Your task to perform on an android device: turn pop-ups off in chrome Image 0: 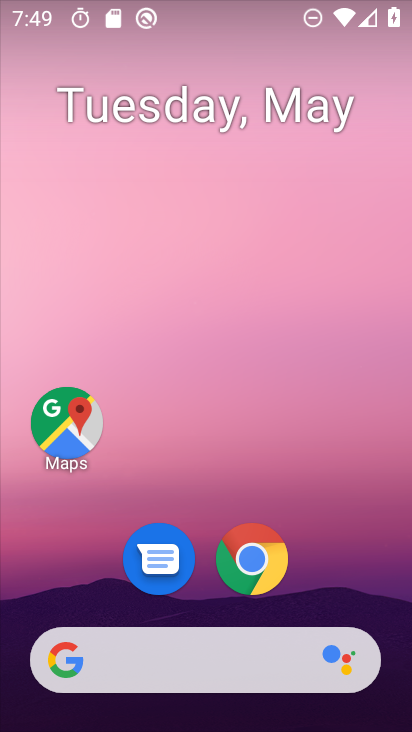
Step 0: drag from (401, 533) to (299, 38)
Your task to perform on an android device: turn pop-ups off in chrome Image 1: 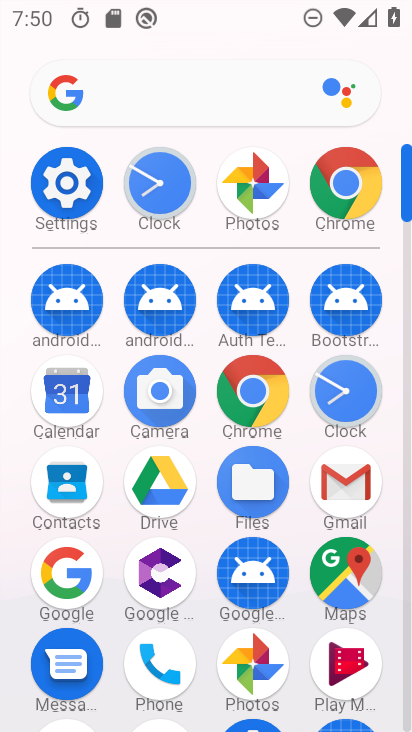
Step 1: click (359, 161)
Your task to perform on an android device: turn pop-ups off in chrome Image 2: 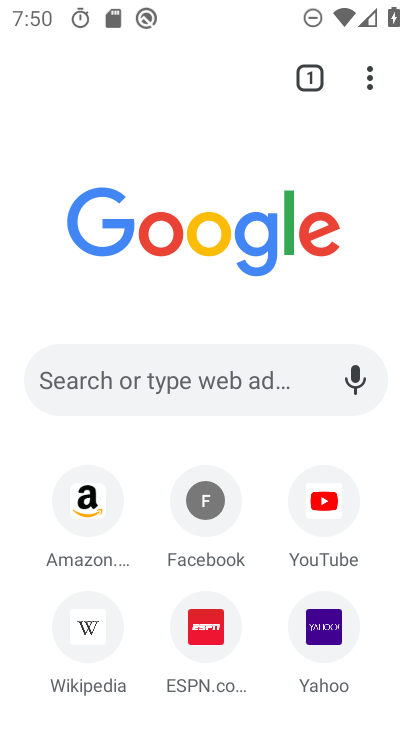
Step 2: click (367, 75)
Your task to perform on an android device: turn pop-ups off in chrome Image 3: 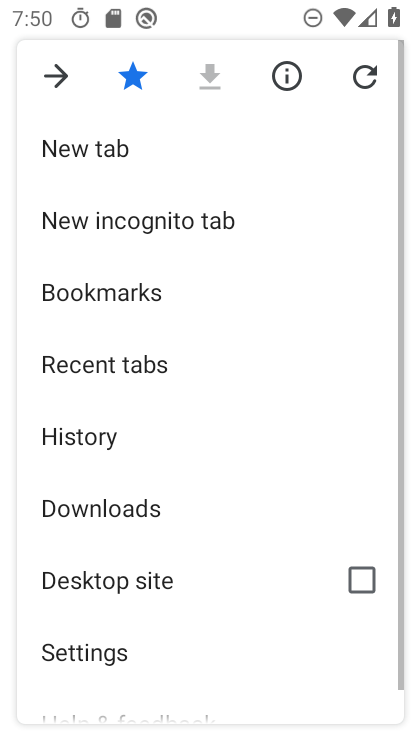
Step 3: click (118, 651)
Your task to perform on an android device: turn pop-ups off in chrome Image 4: 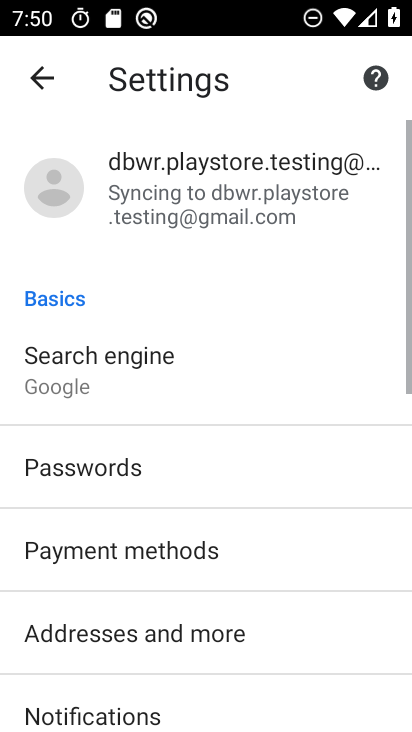
Step 4: drag from (119, 651) to (149, 158)
Your task to perform on an android device: turn pop-ups off in chrome Image 5: 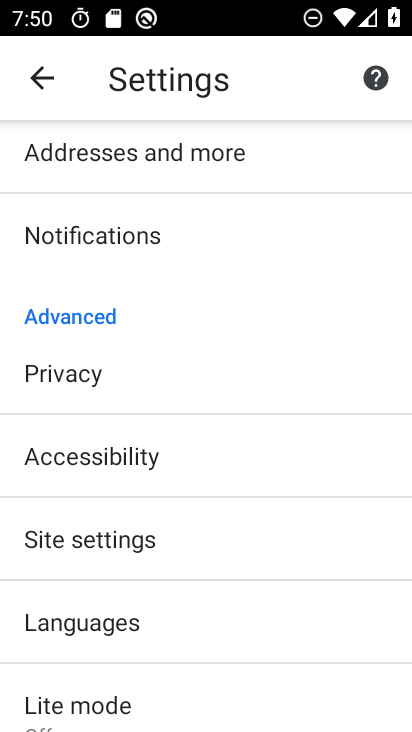
Step 5: click (128, 563)
Your task to perform on an android device: turn pop-ups off in chrome Image 6: 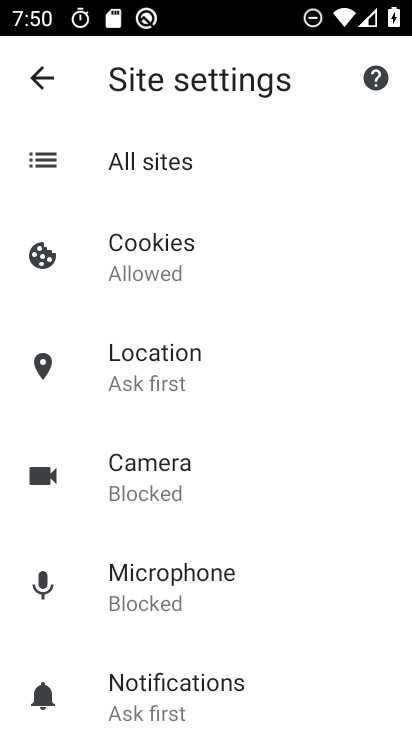
Step 6: drag from (168, 670) to (213, 149)
Your task to perform on an android device: turn pop-ups off in chrome Image 7: 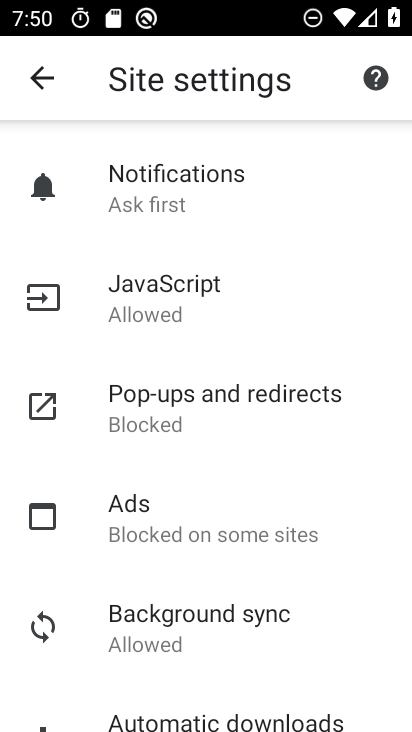
Step 7: click (227, 393)
Your task to perform on an android device: turn pop-ups off in chrome Image 8: 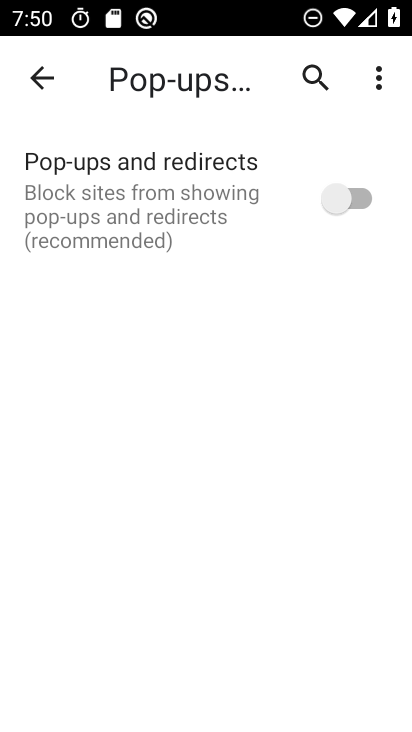
Step 8: task complete